Your task to perform on an android device: all mails in gmail Image 0: 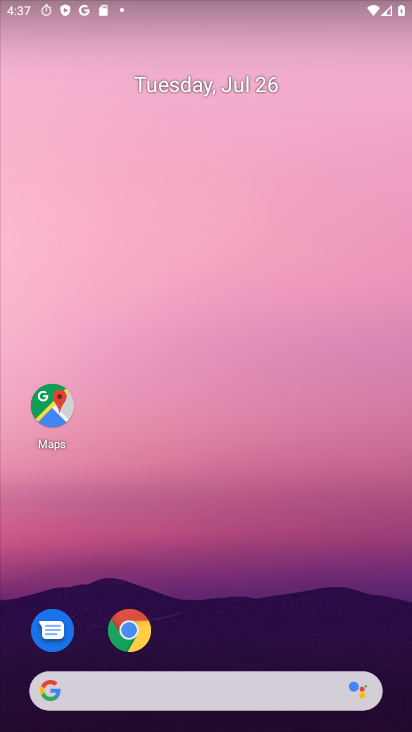
Step 0: drag from (321, 563) to (257, 34)
Your task to perform on an android device: all mails in gmail Image 1: 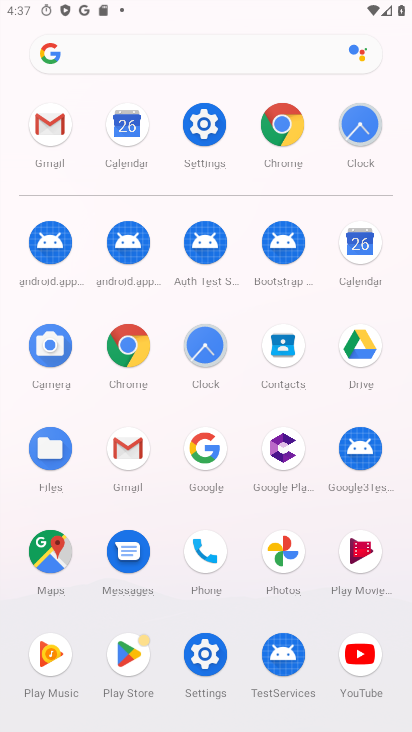
Step 1: click (39, 122)
Your task to perform on an android device: all mails in gmail Image 2: 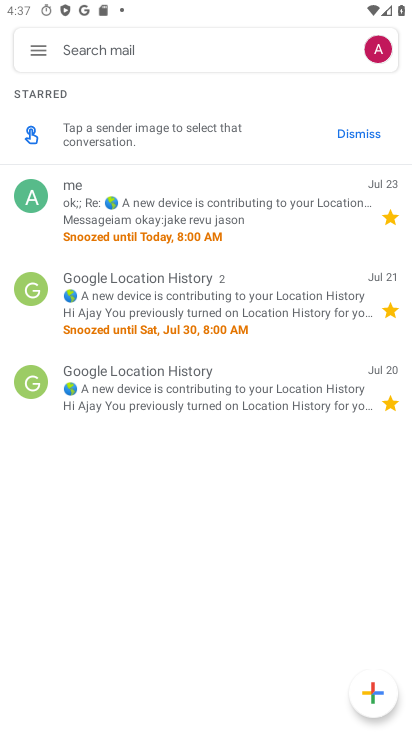
Step 2: click (41, 42)
Your task to perform on an android device: all mails in gmail Image 3: 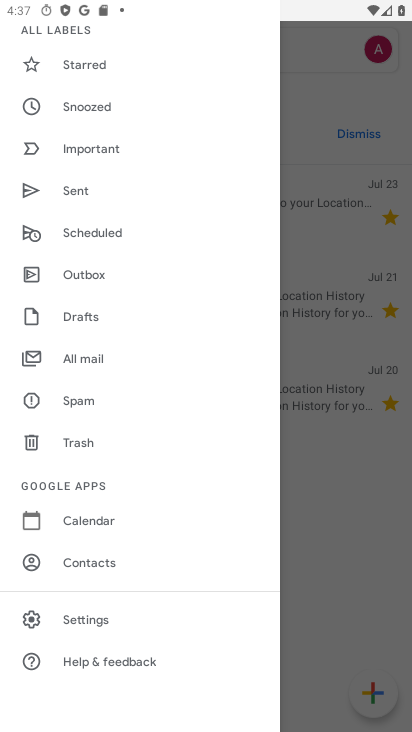
Step 3: click (84, 359)
Your task to perform on an android device: all mails in gmail Image 4: 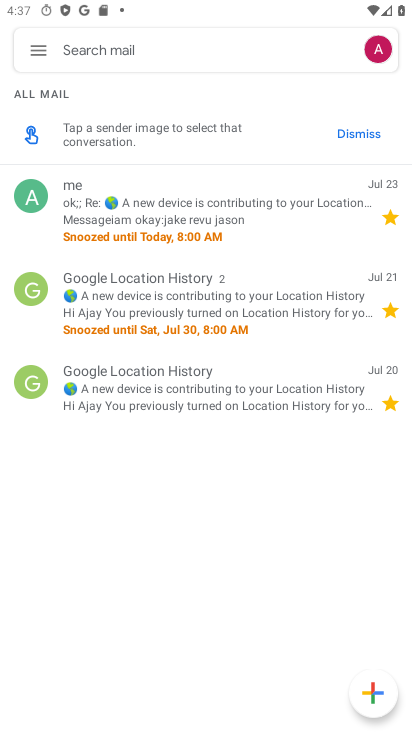
Step 4: task complete